Your task to perform on an android device: Show me the alarms in the clock app Image 0: 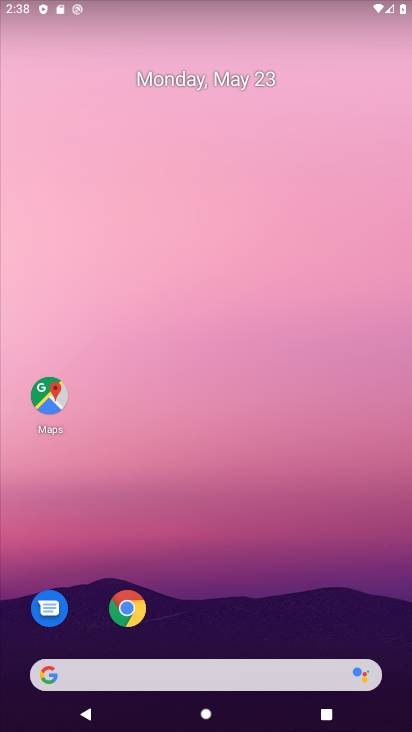
Step 0: drag from (304, 571) to (314, 293)
Your task to perform on an android device: Show me the alarms in the clock app Image 1: 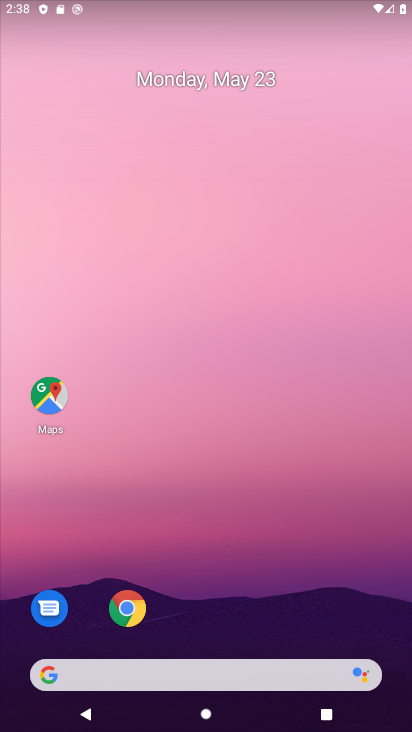
Step 1: drag from (284, 551) to (356, 207)
Your task to perform on an android device: Show me the alarms in the clock app Image 2: 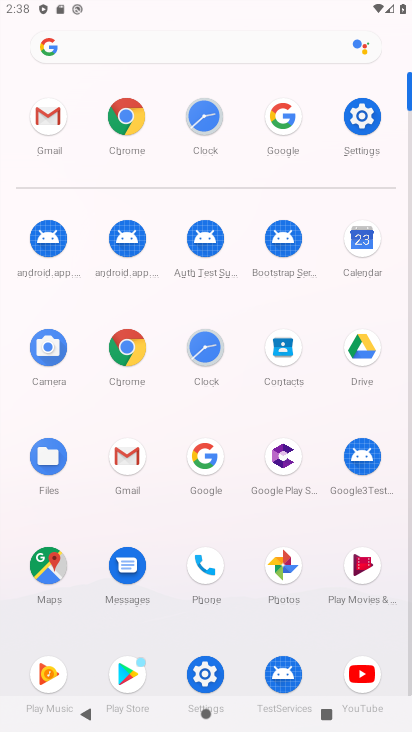
Step 2: click (201, 348)
Your task to perform on an android device: Show me the alarms in the clock app Image 3: 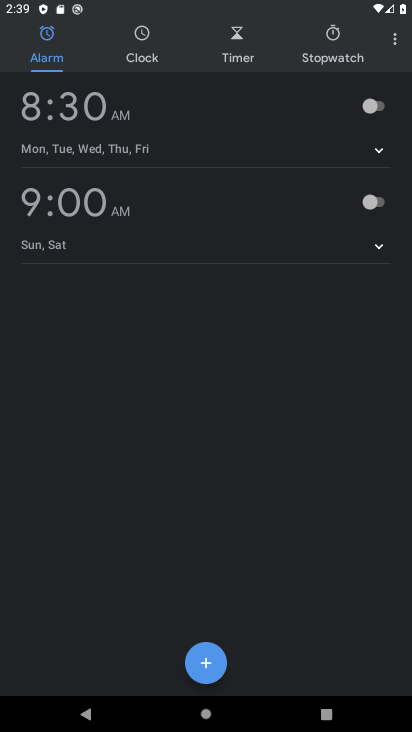
Step 3: task complete